Your task to perform on an android device: find which apps use the phone's location Image 0: 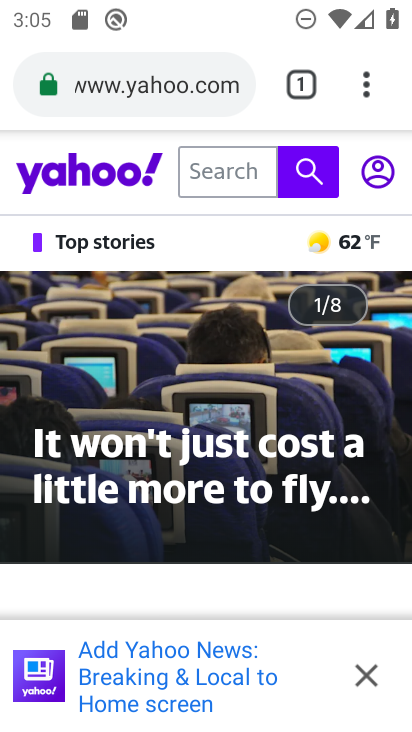
Step 0: click (374, 675)
Your task to perform on an android device: find which apps use the phone's location Image 1: 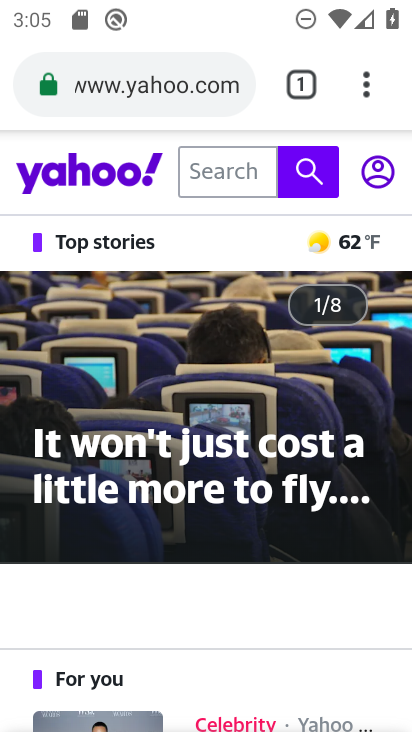
Step 1: press home button
Your task to perform on an android device: find which apps use the phone's location Image 2: 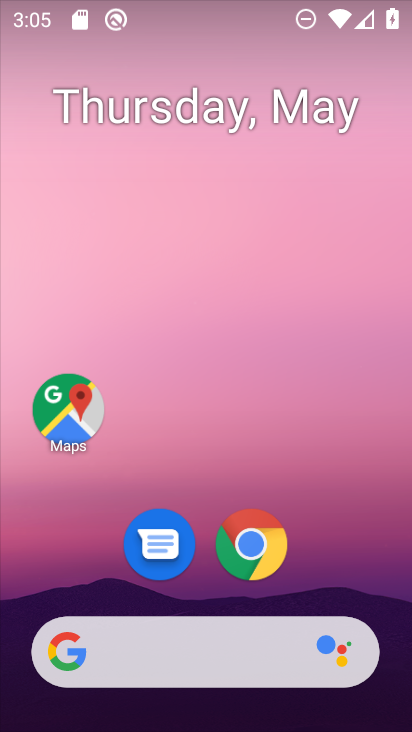
Step 2: drag from (95, 618) to (282, 98)
Your task to perform on an android device: find which apps use the phone's location Image 3: 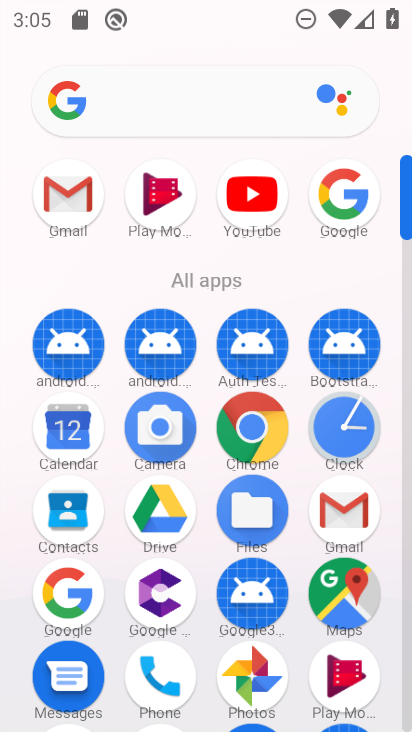
Step 3: drag from (183, 650) to (251, 356)
Your task to perform on an android device: find which apps use the phone's location Image 4: 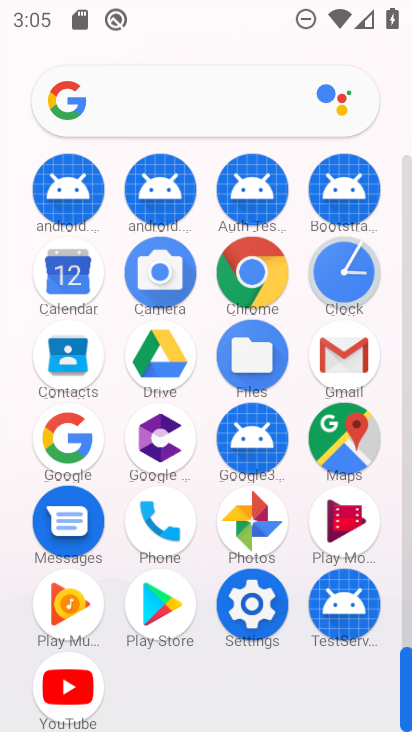
Step 4: click (249, 610)
Your task to perform on an android device: find which apps use the phone's location Image 5: 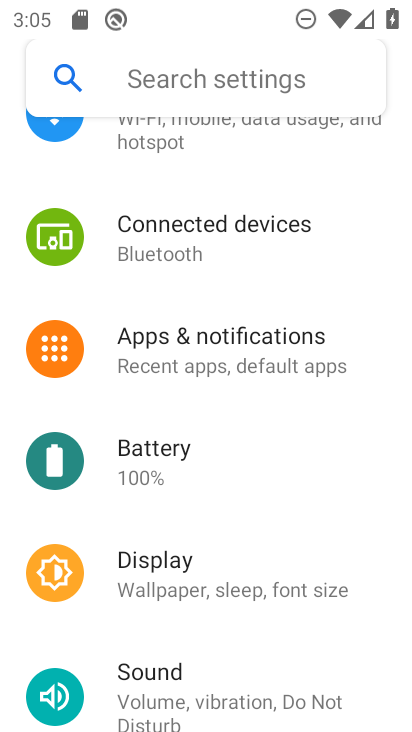
Step 5: drag from (212, 706) to (411, 152)
Your task to perform on an android device: find which apps use the phone's location Image 6: 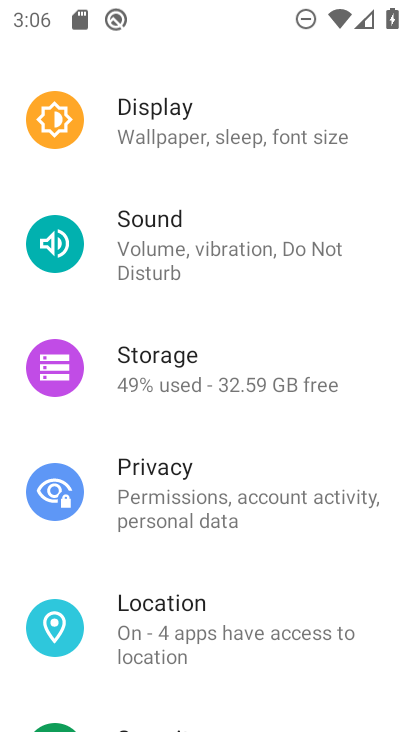
Step 6: click (178, 596)
Your task to perform on an android device: find which apps use the phone's location Image 7: 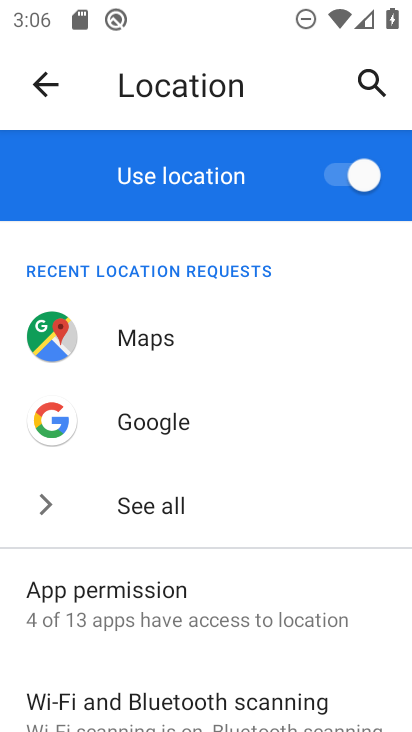
Step 7: click (160, 612)
Your task to perform on an android device: find which apps use the phone's location Image 8: 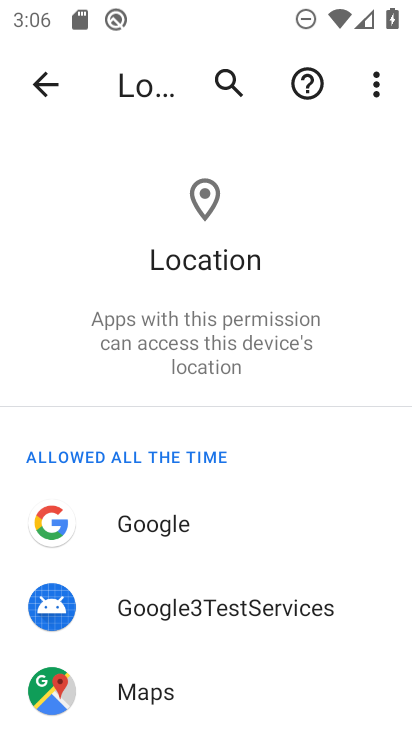
Step 8: task complete